Your task to perform on an android device: change text size in settings app Image 0: 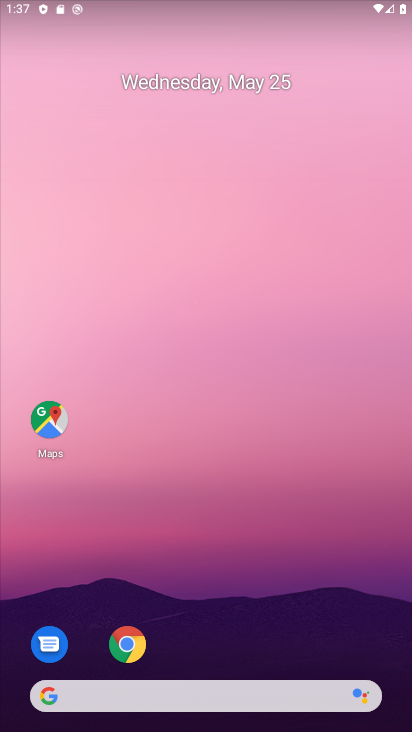
Step 0: drag from (308, 626) to (340, 267)
Your task to perform on an android device: change text size in settings app Image 1: 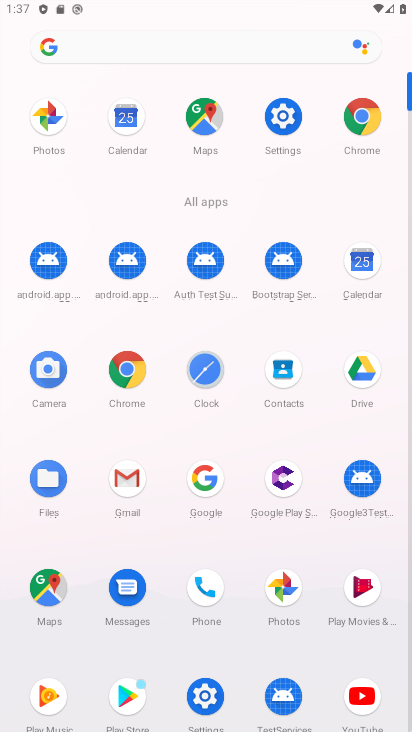
Step 1: click (271, 116)
Your task to perform on an android device: change text size in settings app Image 2: 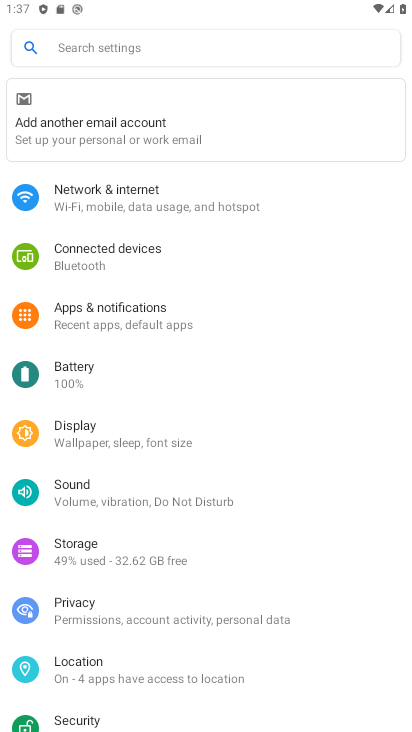
Step 2: drag from (310, 578) to (354, 363)
Your task to perform on an android device: change text size in settings app Image 3: 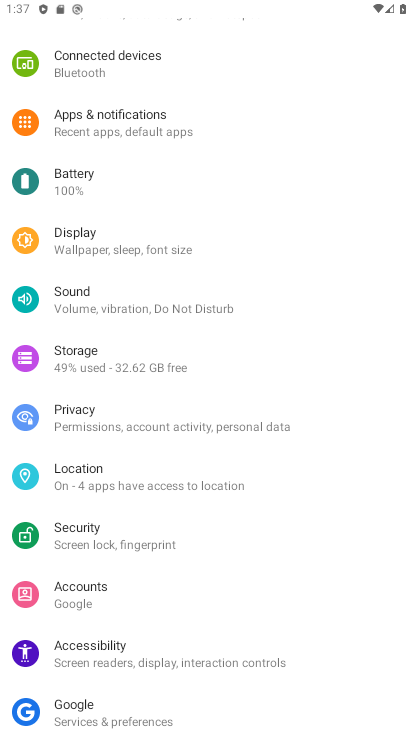
Step 3: drag from (340, 572) to (340, 393)
Your task to perform on an android device: change text size in settings app Image 4: 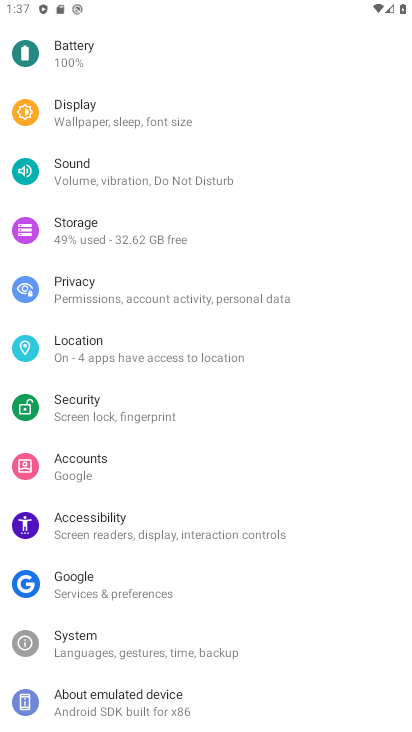
Step 4: drag from (326, 568) to (347, 428)
Your task to perform on an android device: change text size in settings app Image 5: 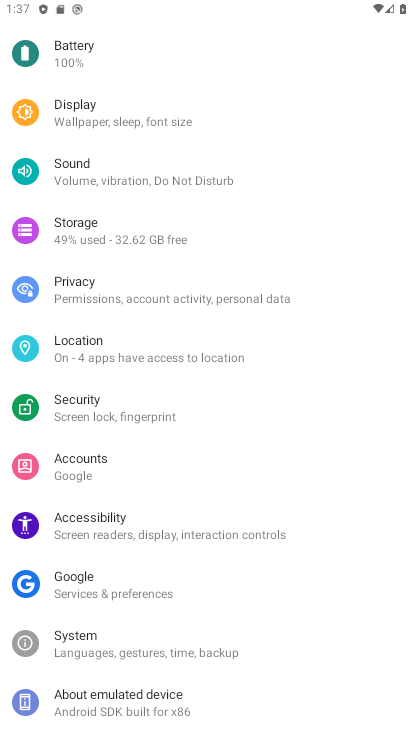
Step 5: drag from (330, 593) to (338, 473)
Your task to perform on an android device: change text size in settings app Image 6: 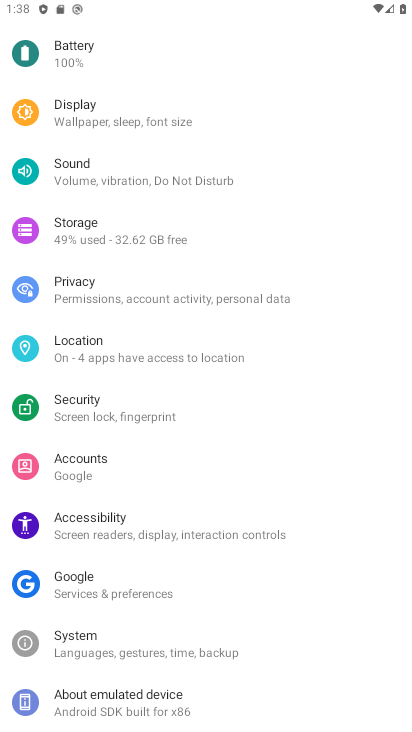
Step 6: drag from (325, 292) to (325, 409)
Your task to perform on an android device: change text size in settings app Image 7: 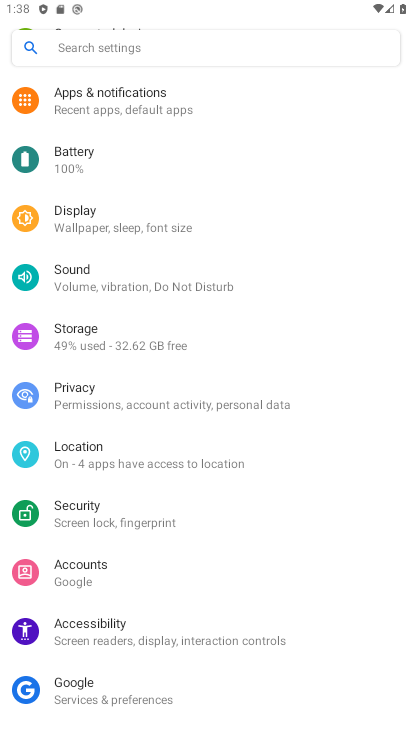
Step 7: drag from (323, 269) to (324, 368)
Your task to perform on an android device: change text size in settings app Image 8: 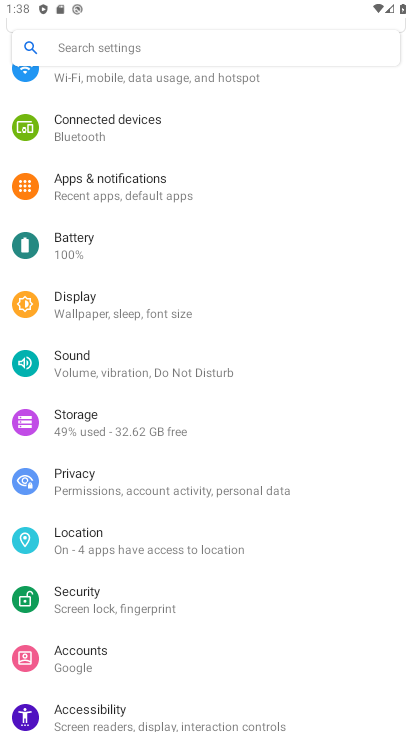
Step 8: drag from (333, 234) to (316, 370)
Your task to perform on an android device: change text size in settings app Image 9: 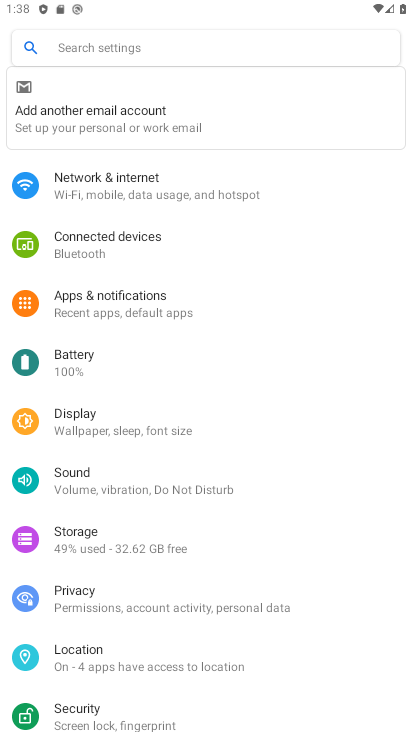
Step 9: drag from (305, 263) to (297, 362)
Your task to perform on an android device: change text size in settings app Image 10: 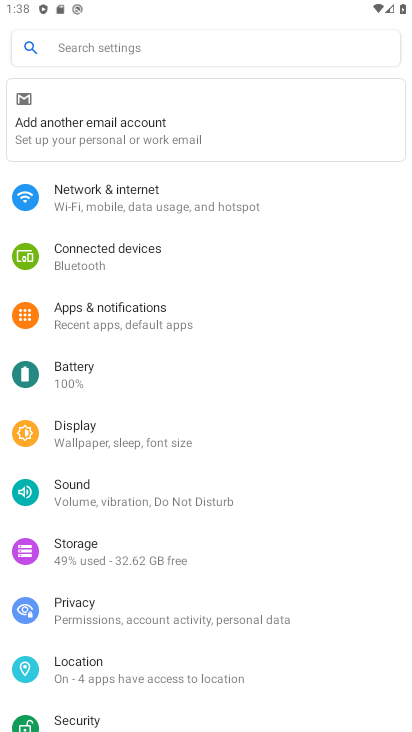
Step 10: click (135, 441)
Your task to perform on an android device: change text size in settings app Image 11: 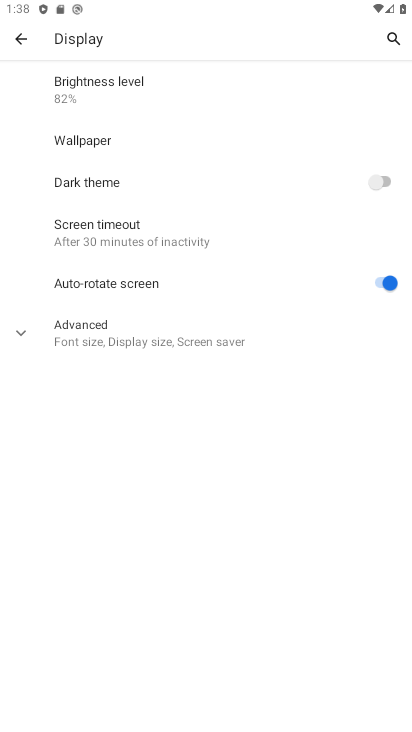
Step 11: click (149, 339)
Your task to perform on an android device: change text size in settings app Image 12: 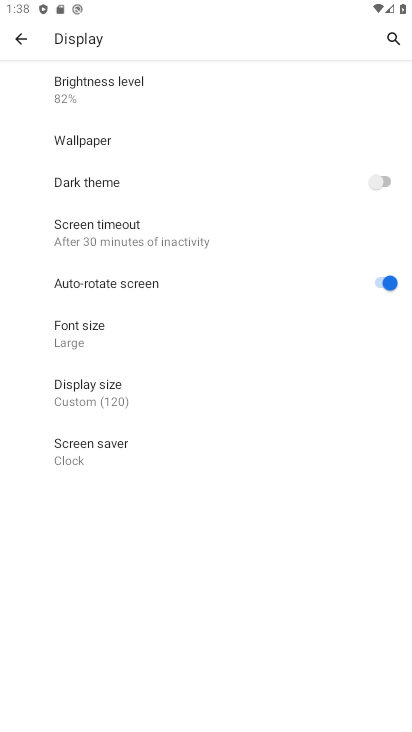
Step 12: click (76, 342)
Your task to perform on an android device: change text size in settings app Image 13: 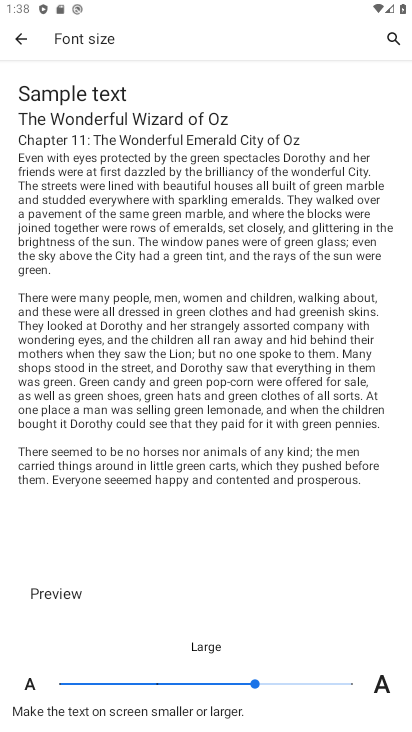
Step 13: task complete